Your task to perform on an android device: move a message to another label in the gmail app Image 0: 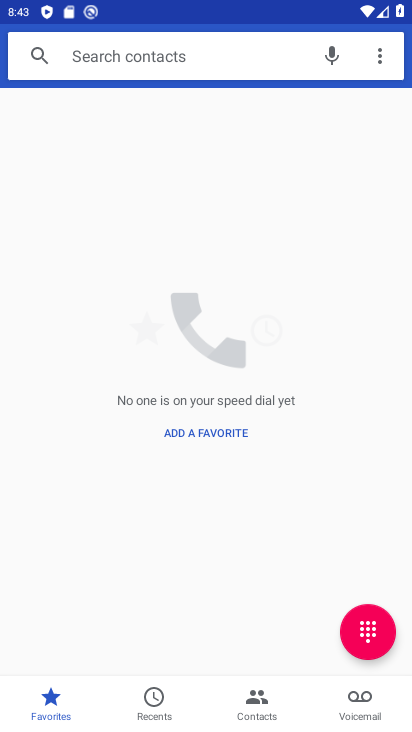
Step 0: press home button
Your task to perform on an android device: move a message to another label in the gmail app Image 1: 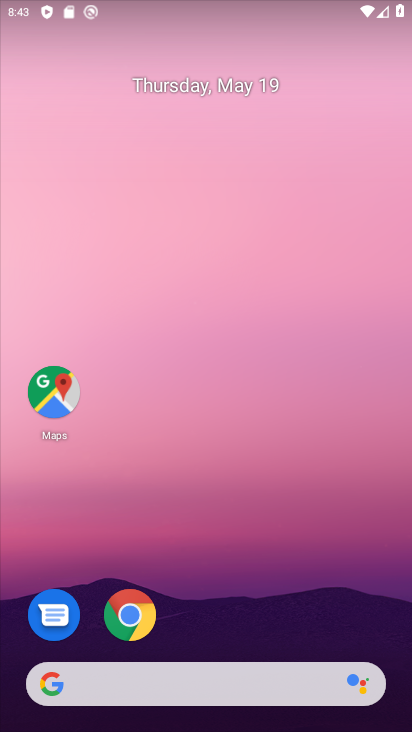
Step 1: drag from (249, 626) to (252, 172)
Your task to perform on an android device: move a message to another label in the gmail app Image 2: 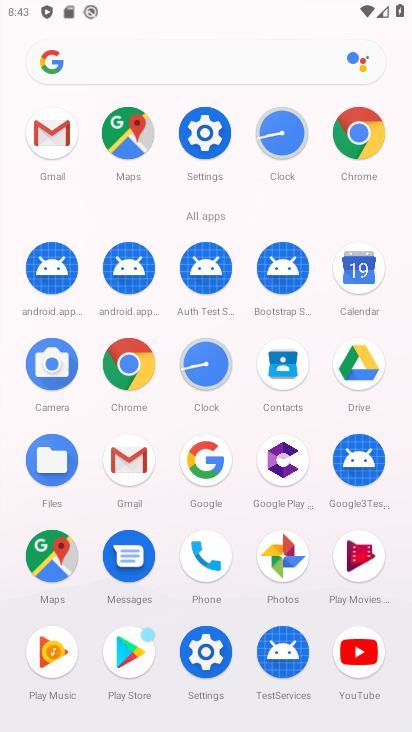
Step 2: click (56, 151)
Your task to perform on an android device: move a message to another label in the gmail app Image 3: 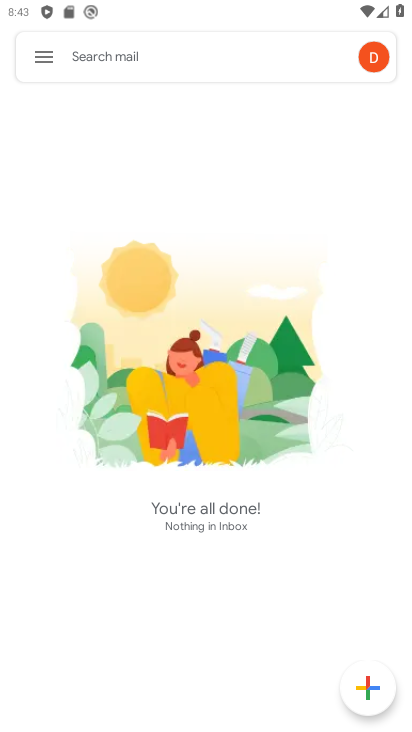
Step 3: task complete